Your task to perform on an android device: open the mobile data screen to see how much data has been used Image 0: 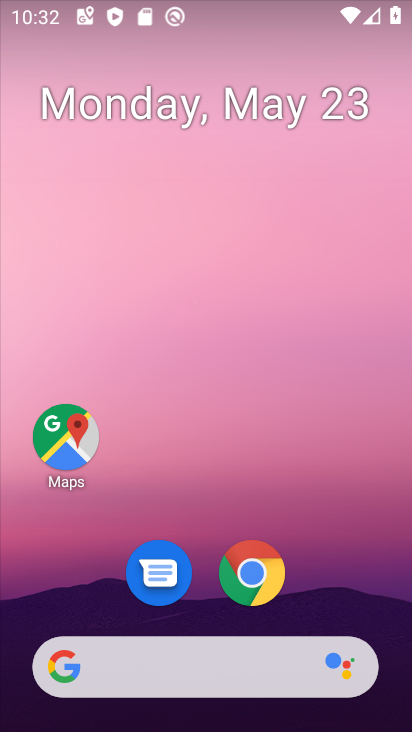
Step 0: drag from (220, 578) to (299, 165)
Your task to perform on an android device: open the mobile data screen to see how much data has been used Image 1: 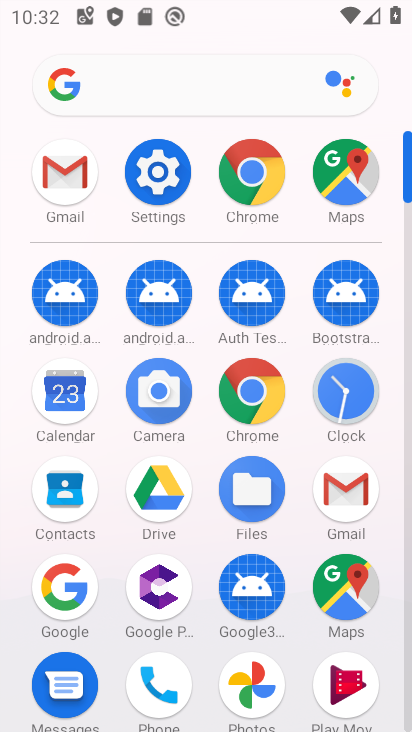
Step 1: click (149, 173)
Your task to perform on an android device: open the mobile data screen to see how much data has been used Image 2: 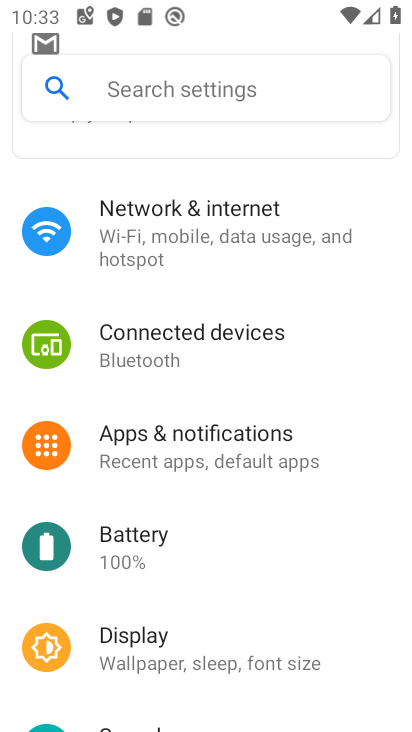
Step 2: click (260, 239)
Your task to perform on an android device: open the mobile data screen to see how much data has been used Image 3: 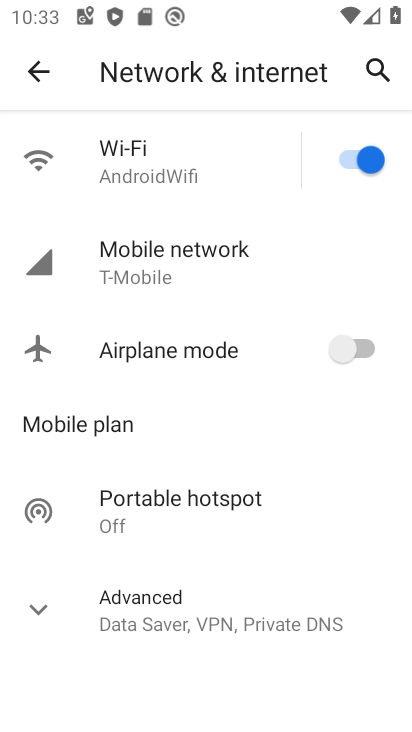
Step 3: click (189, 265)
Your task to perform on an android device: open the mobile data screen to see how much data has been used Image 4: 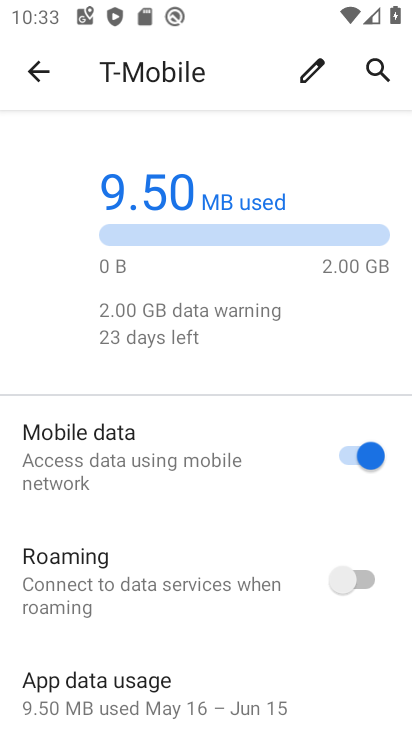
Step 4: drag from (153, 517) to (229, 256)
Your task to perform on an android device: open the mobile data screen to see how much data has been used Image 5: 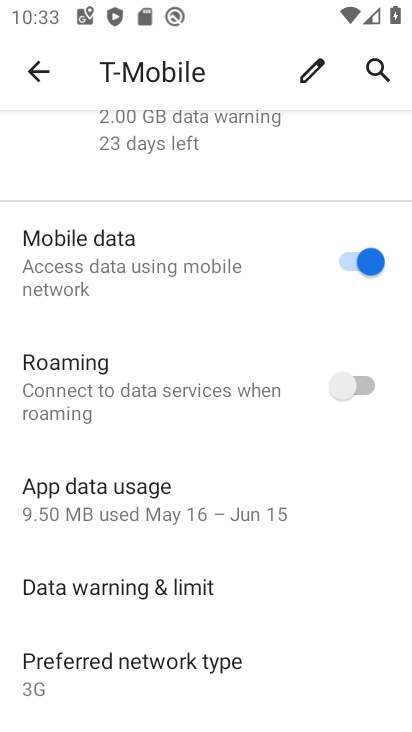
Step 5: click (208, 516)
Your task to perform on an android device: open the mobile data screen to see how much data has been used Image 6: 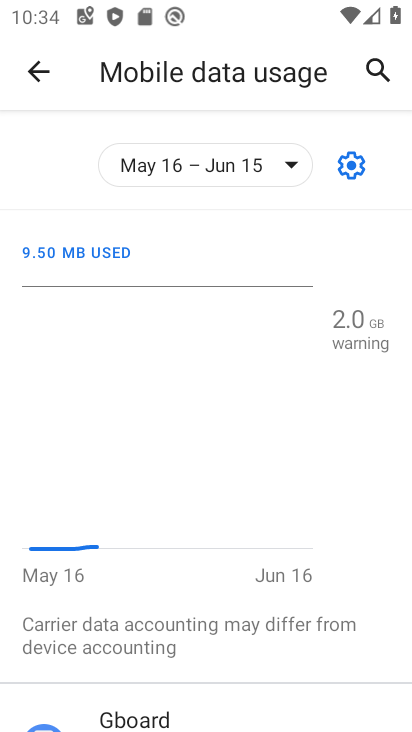
Step 6: task complete